Your task to perform on an android device: change text size in settings app Image 0: 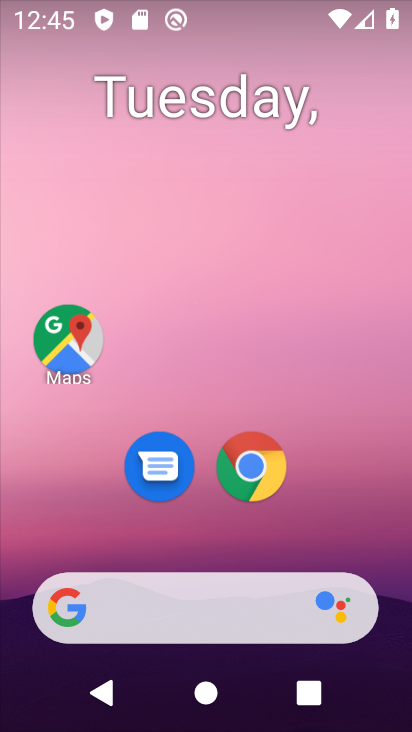
Step 0: drag from (385, 514) to (221, 136)
Your task to perform on an android device: change text size in settings app Image 1: 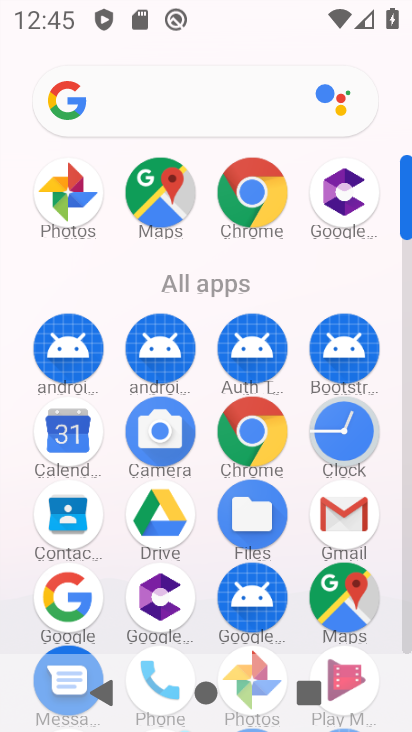
Step 1: click (409, 643)
Your task to perform on an android device: change text size in settings app Image 2: 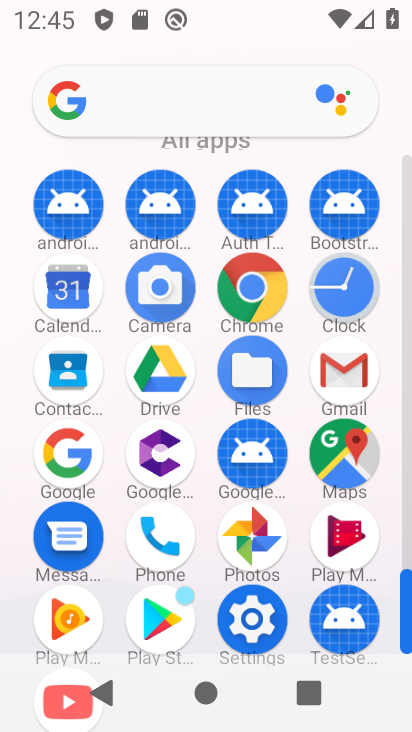
Step 2: click (232, 623)
Your task to perform on an android device: change text size in settings app Image 3: 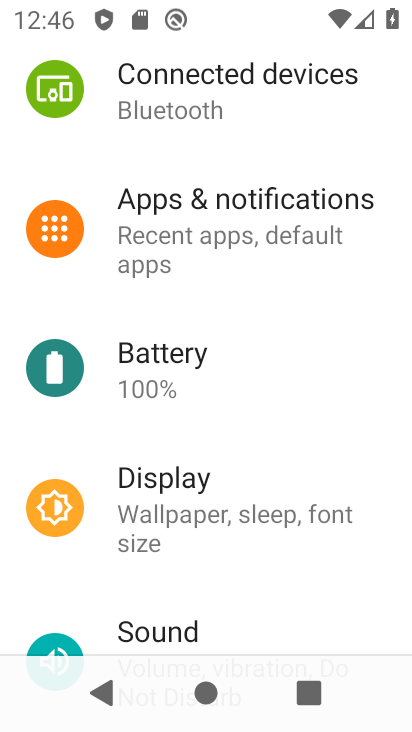
Step 3: task complete